Your task to perform on an android device: clear history in the chrome app Image 0: 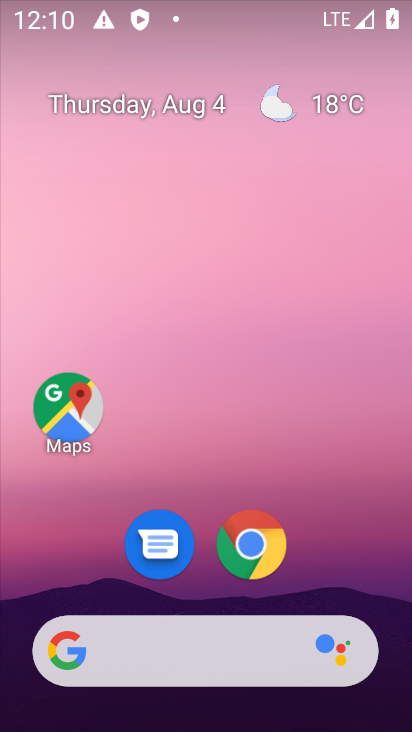
Step 0: click (250, 551)
Your task to perform on an android device: clear history in the chrome app Image 1: 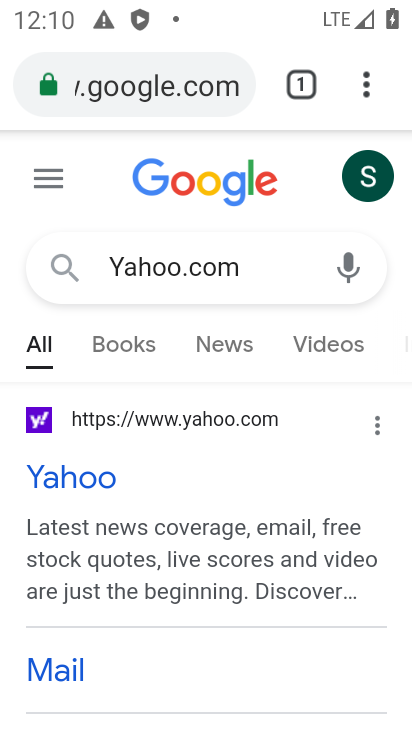
Step 1: click (368, 81)
Your task to perform on an android device: clear history in the chrome app Image 2: 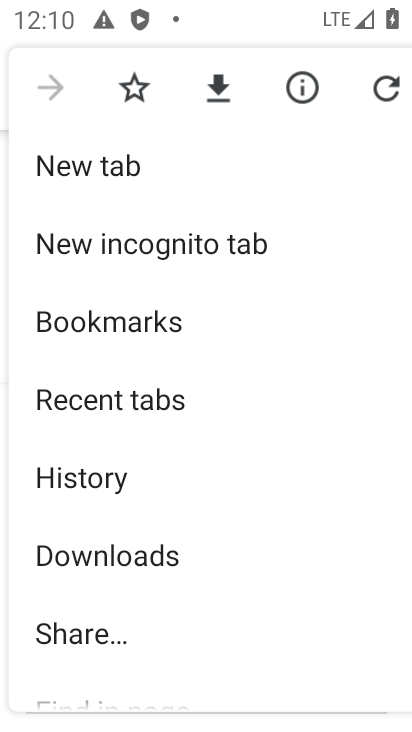
Step 2: drag from (163, 657) to (190, 478)
Your task to perform on an android device: clear history in the chrome app Image 3: 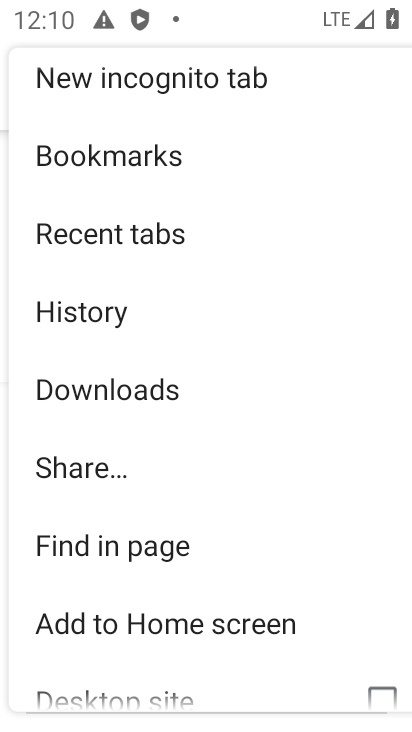
Step 3: click (92, 306)
Your task to perform on an android device: clear history in the chrome app Image 4: 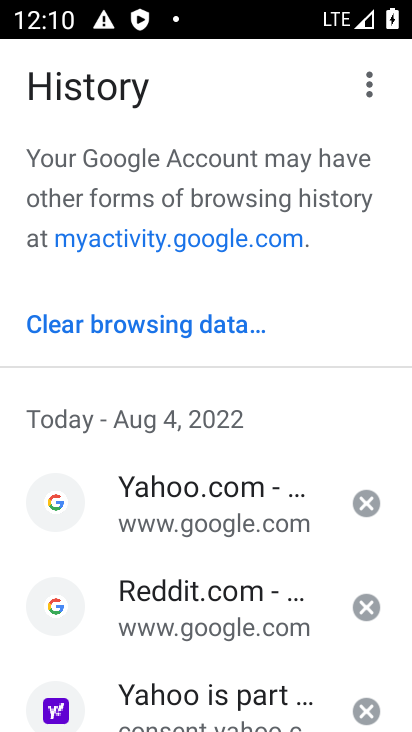
Step 4: click (179, 319)
Your task to perform on an android device: clear history in the chrome app Image 5: 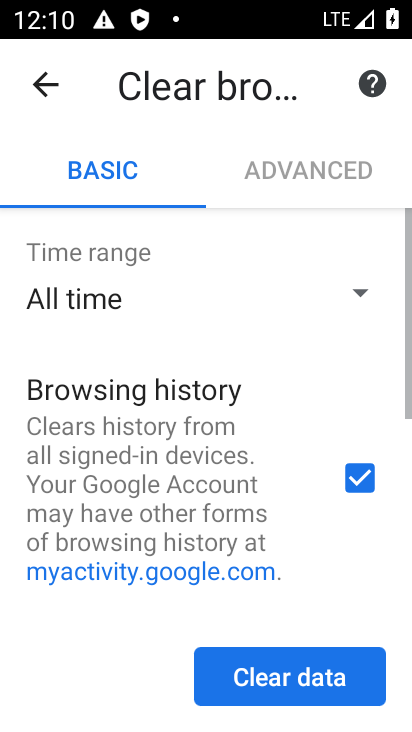
Step 5: click (331, 683)
Your task to perform on an android device: clear history in the chrome app Image 6: 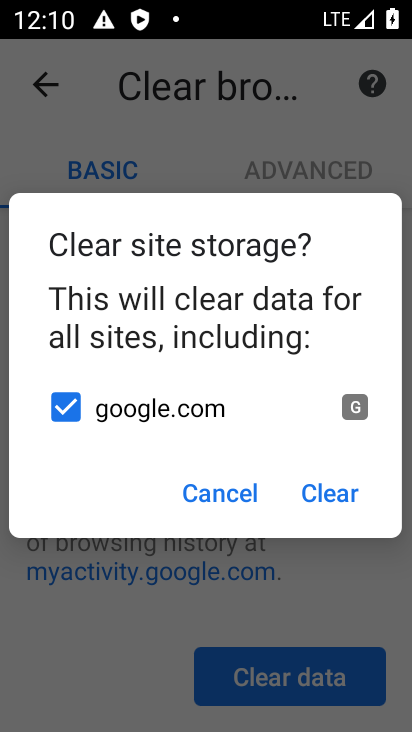
Step 6: click (315, 490)
Your task to perform on an android device: clear history in the chrome app Image 7: 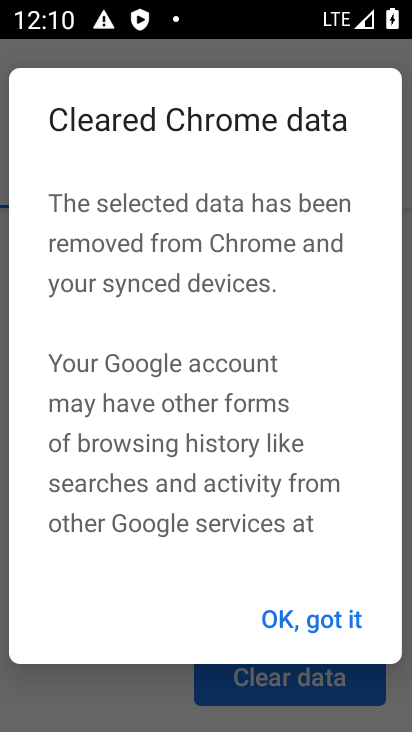
Step 7: click (316, 625)
Your task to perform on an android device: clear history in the chrome app Image 8: 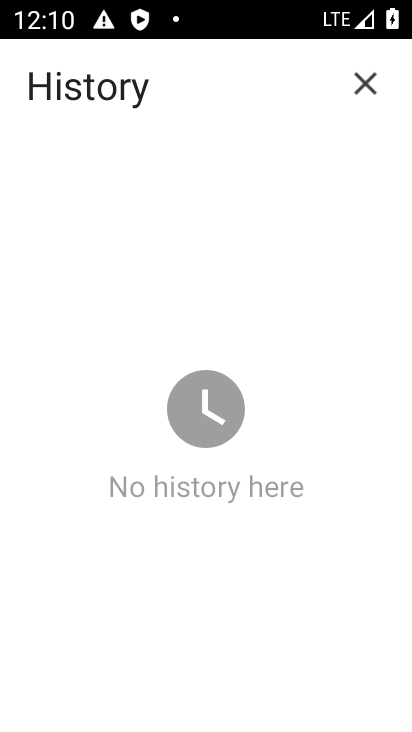
Step 8: task complete